Your task to perform on an android device: Open settings on Google Maps Image 0: 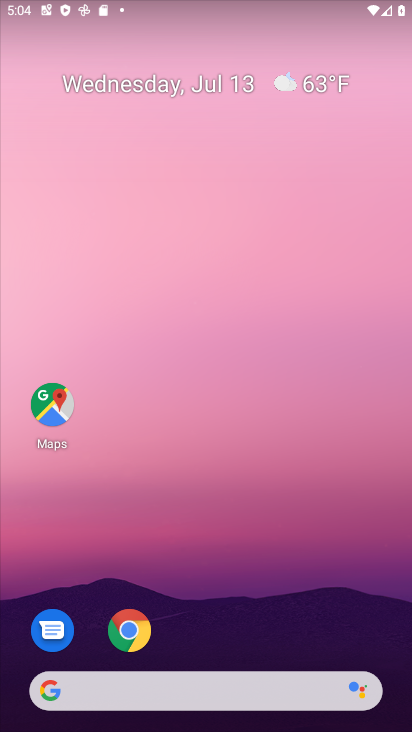
Step 0: press home button
Your task to perform on an android device: Open settings on Google Maps Image 1: 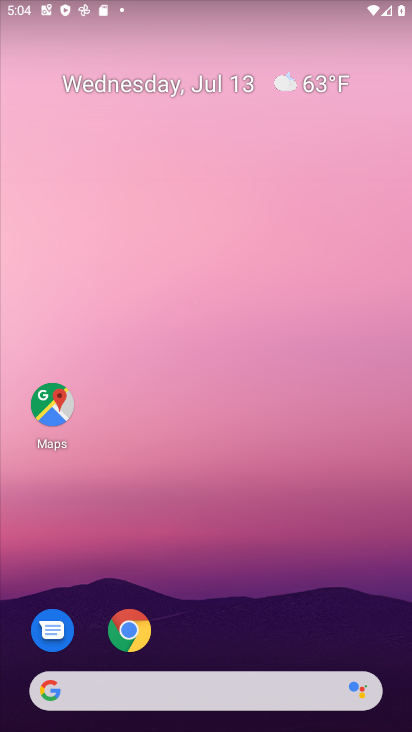
Step 1: drag from (244, 640) to (268, 133)
Your task to perform on an android device: Open settings on Google Maps Image 2: 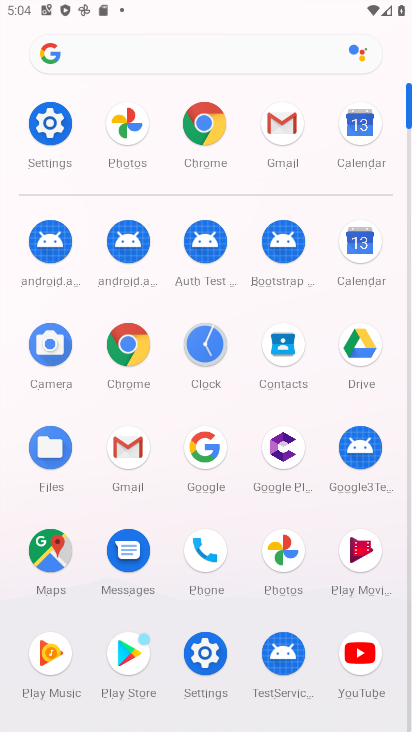
Step 2: click (49, 548)
Your task to perform on an android device: Open settings on Google Maps Image 3: 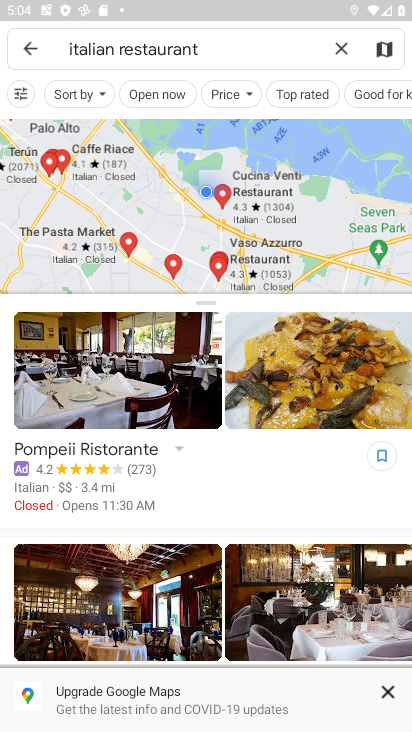
Step 3: press back button
Your task to perform on an android device: Open settings on Google Maps Image 4: 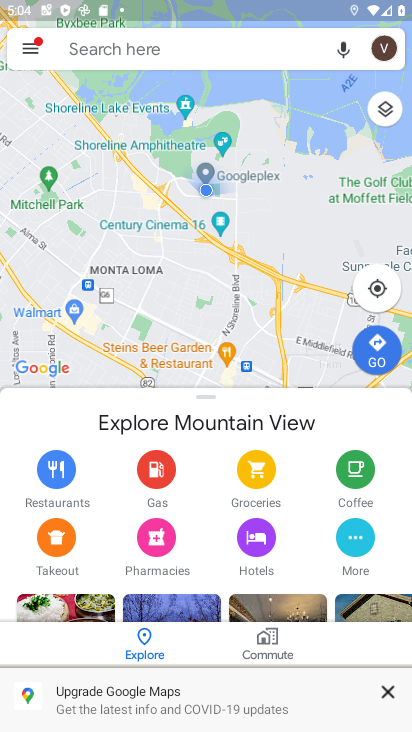
Step 4: click (30, 47)
Your task to perform on an android device: Open settings on Google Maps Image 5: 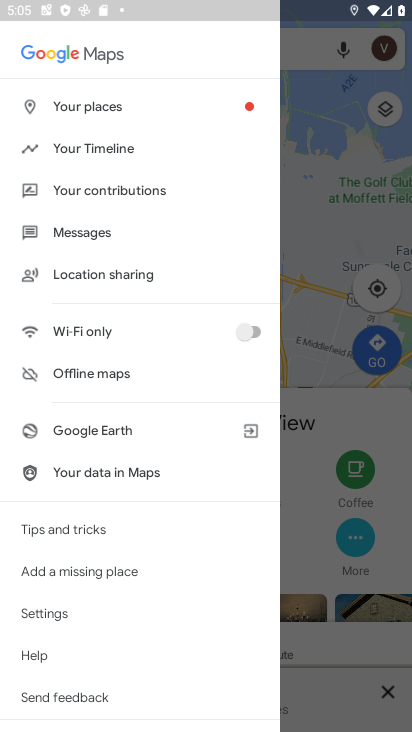
Step 5: click (40, 607)
Your task to perform on an android device: Open settings on Google Maps Image 6: 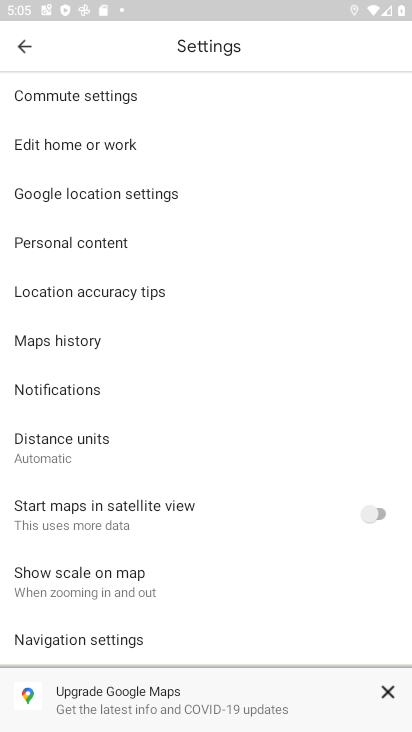
Step 6: task complete